Your task to perform on an android device: Open Google Image 0: 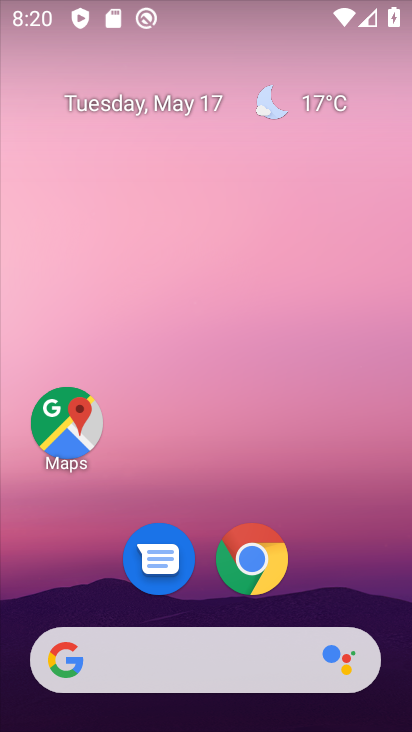
Step 0: drag from (208, 633) to (239, 37)
Your task to perform on an android device: Open Google Image 1: 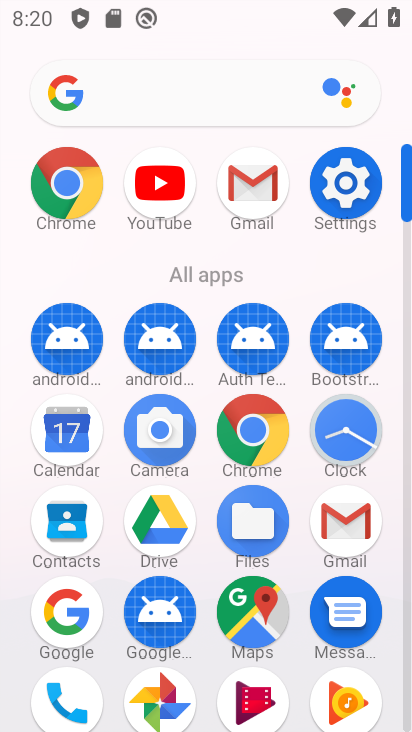
Step 1: click (62, 611)
Your task to perform on an android device: Open Google Image 2: 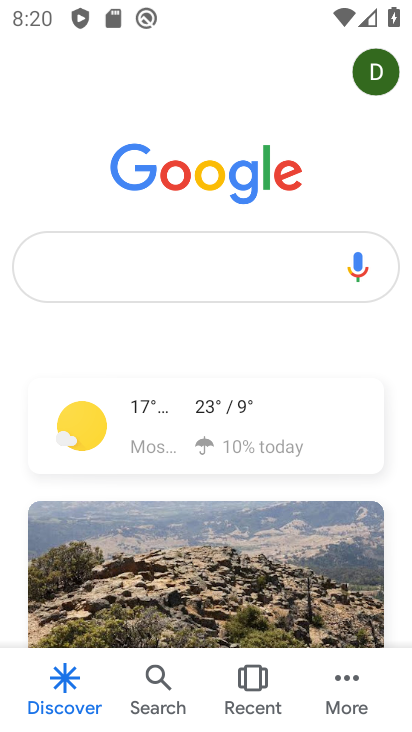
Step 2: task complete